Your task to perform on an android device: Open ESPN.com Image 0: 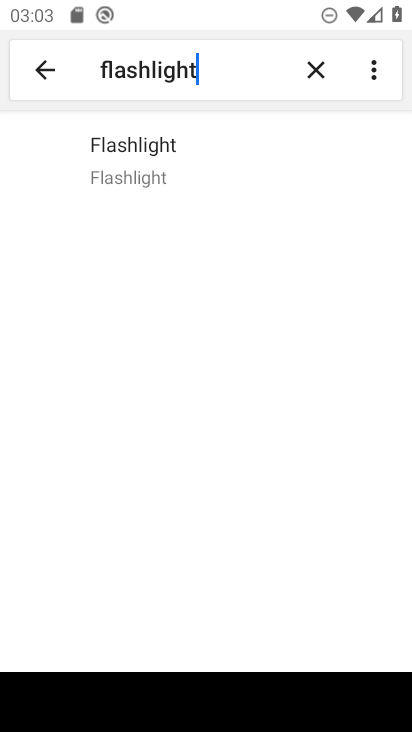
Step 0: click (185, 159)
Your task to perform on an android device: Open ESPN.com Image 1: 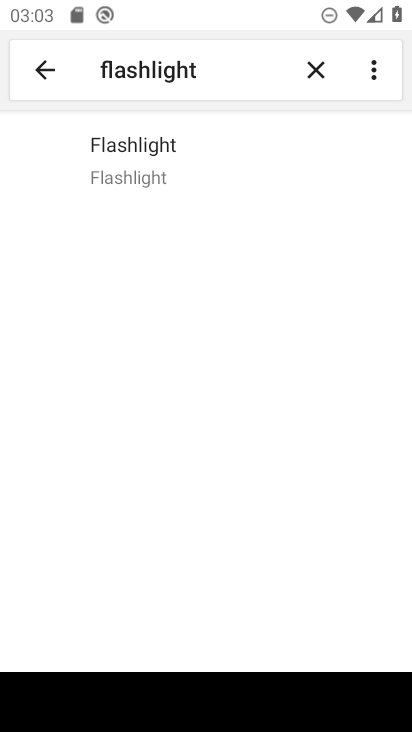
Step 1: task complete